Your task to perform on an android device: turn pop-ups off in chrome Image 0: 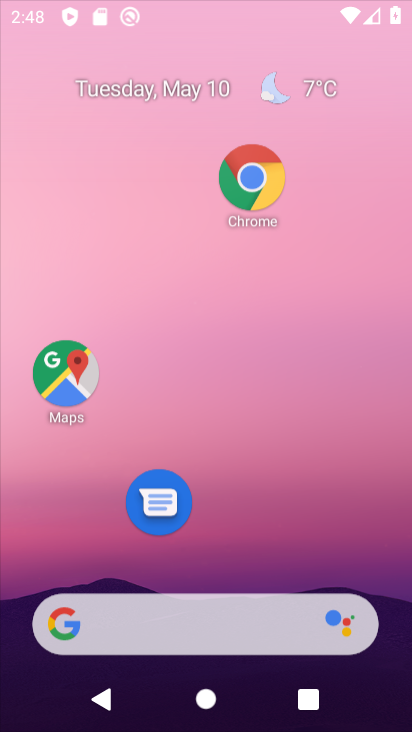
Step 0: click (343, 518)
Your task to perform on an android device: turn pop-ups off in chrome Image 1: 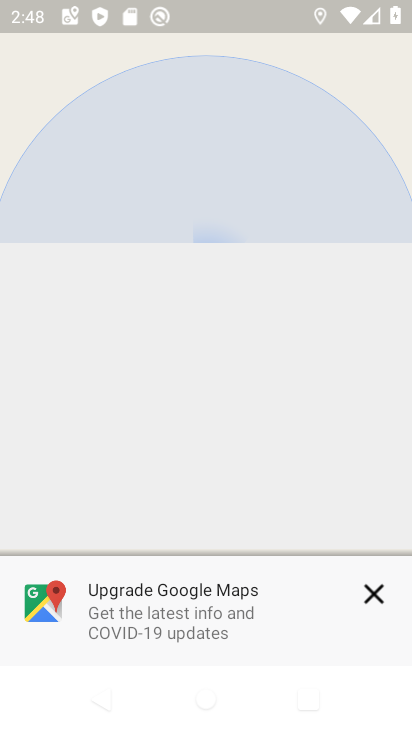
Step 1: press home button
Your task to perform on an android device: turn pop-ups off in chrome Image 2: 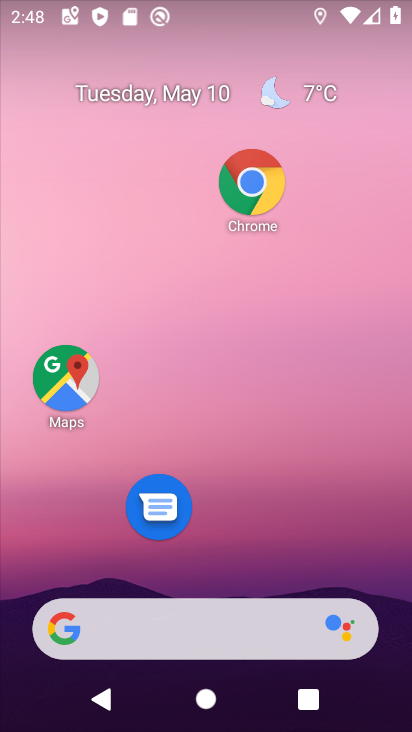
Step 2: click (256, 178)
Your task to perform on an android device: turn pop-ups off in chrome Image 3: 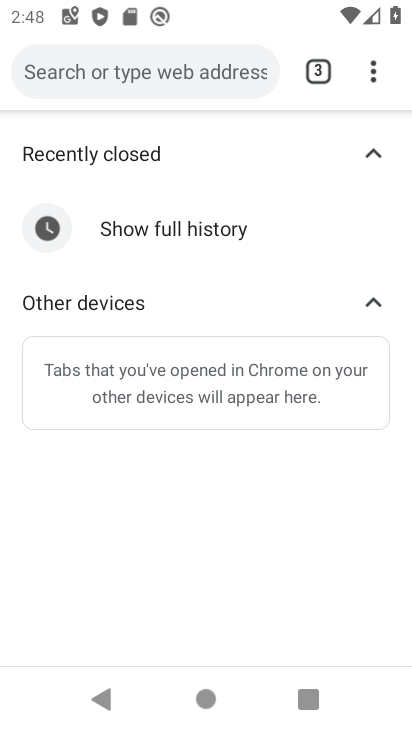
Step 3: click (374, 86)
Your task to perform on an android device: turn pop-ups off in chrome Image 4: 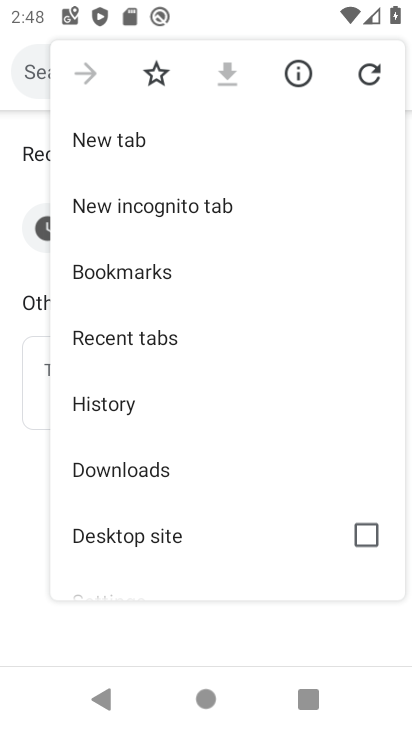
Step 4: click (218, 271)
Your task to perform on an android device: turn pop-ups off in chrome Image 5: 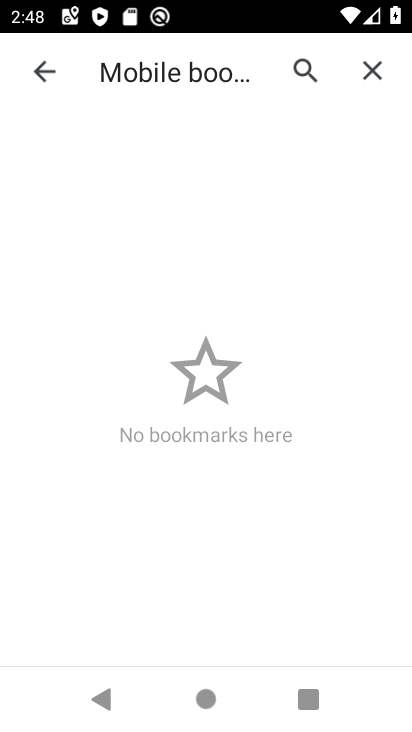
Step 5: task complete